Your task to perform on an android device: Go to Reddit.com Image 0: 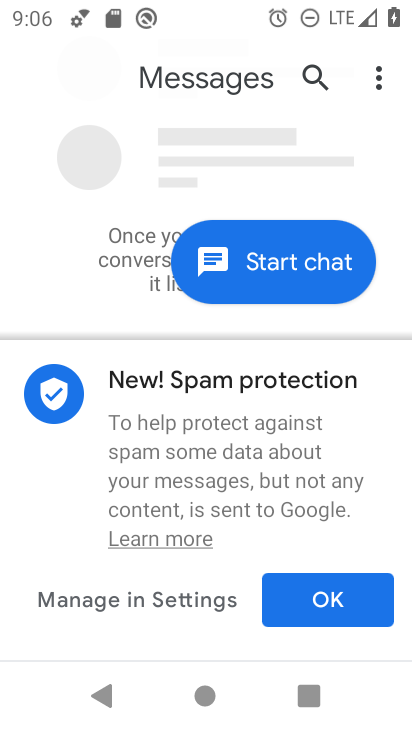
Step 0: press home button
Your task to perform on an android device: Go to Reddit.com Image 1: 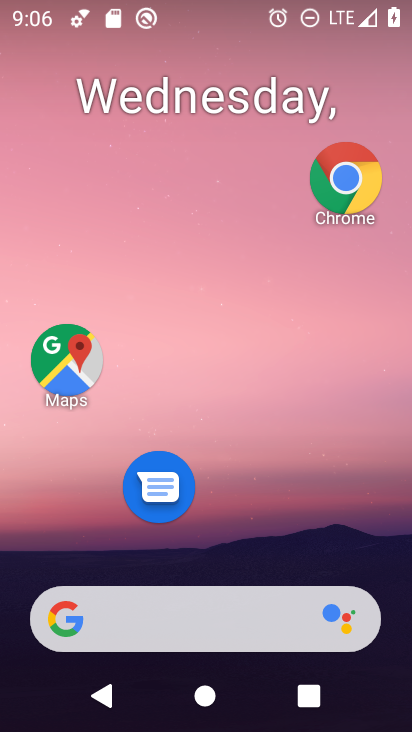
Step 1: drag from (159, 634) to (243, 237)
Your task to perform on an android device: Go to Reddit.com Image 2: 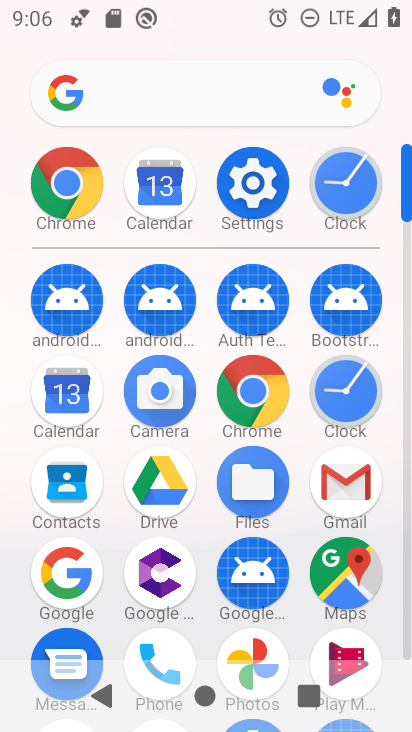
Step 2: click (271, 399)
Your task to perform on an android device: Go to Reddit.com Image 3: 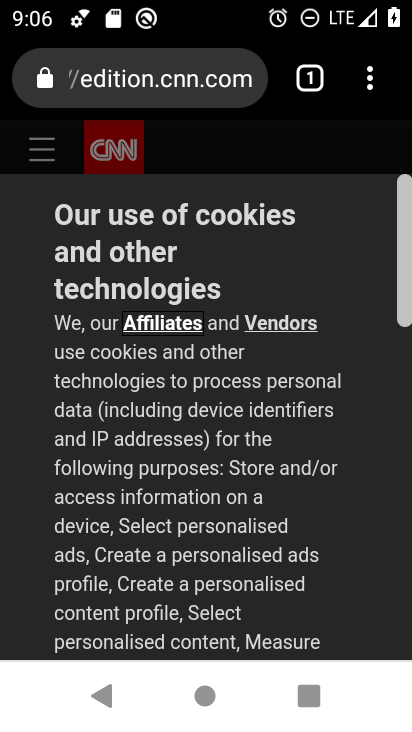
Step 3: click (205, 93)
Your task to perform on an android device: Go to Reddit.com Image 4: 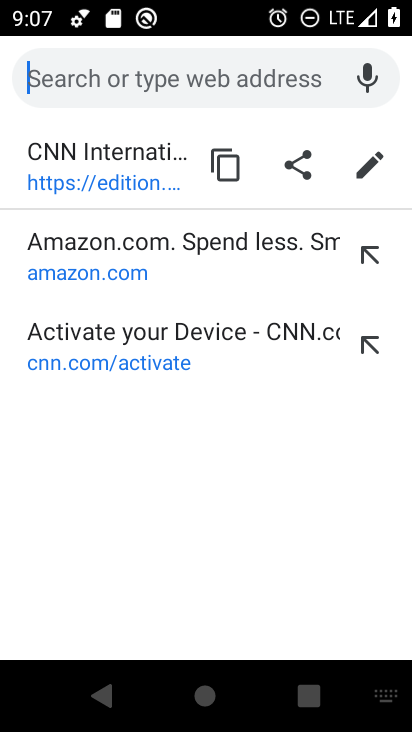
Step 4: type "reddit"
Your task to perform on an android device: Go to Reddit.com Image 5: 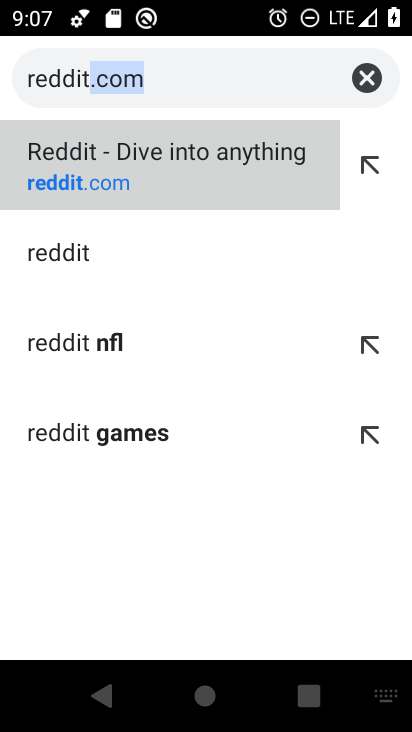
Step 5: click (237, 166)
Your task to perform on an android device: Go to Reddit.com Image 6: 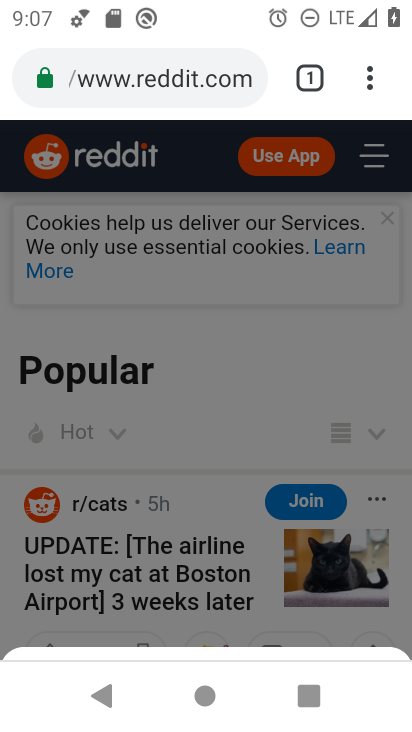
Step 6: task complete